Your task to perform on an android device: Is it going to rain this weekend? Image 0: 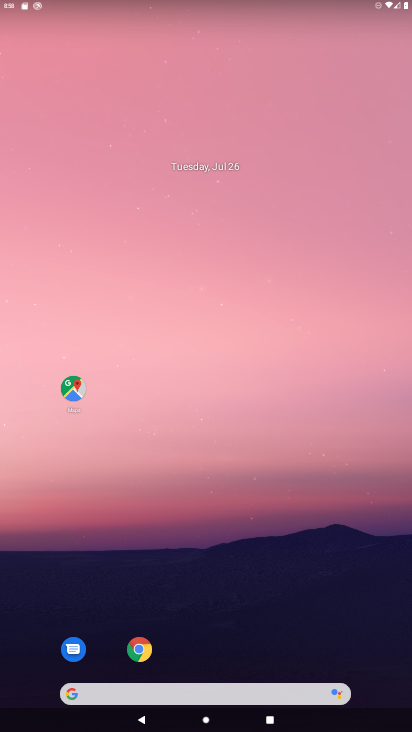
Step 0: click (242, 693)
Your task to perform on an android device: Is it going to rain this weekend? Image 1: 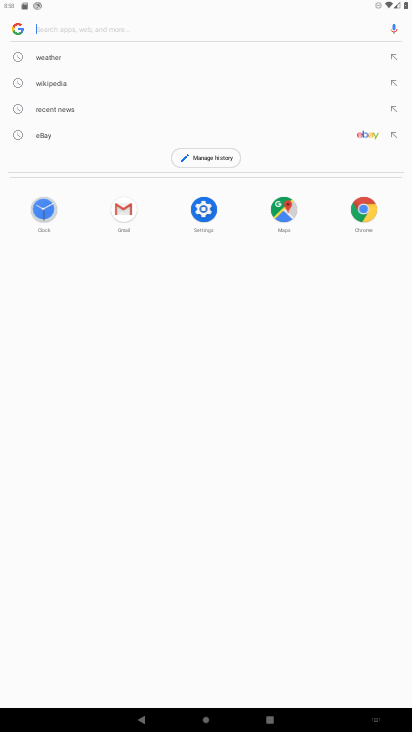
Step 1: click (83, 59)
Your task to perform on an android device: Is it going to rain this weekend? Image 2: 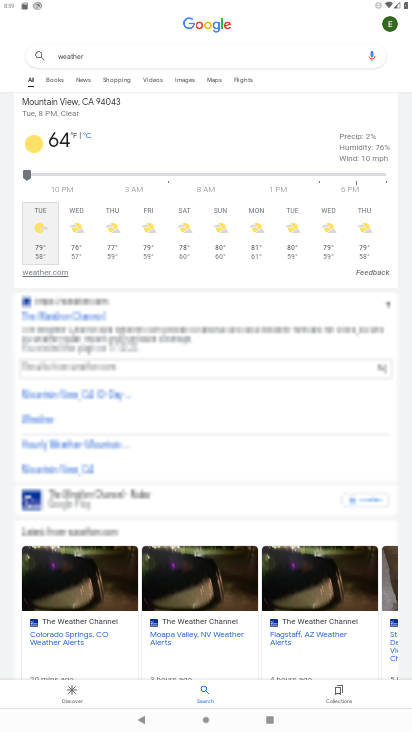
Step 2: click (216, 230)
Your task to perform on an android device: Is it going to rain this weekend? Image 3: 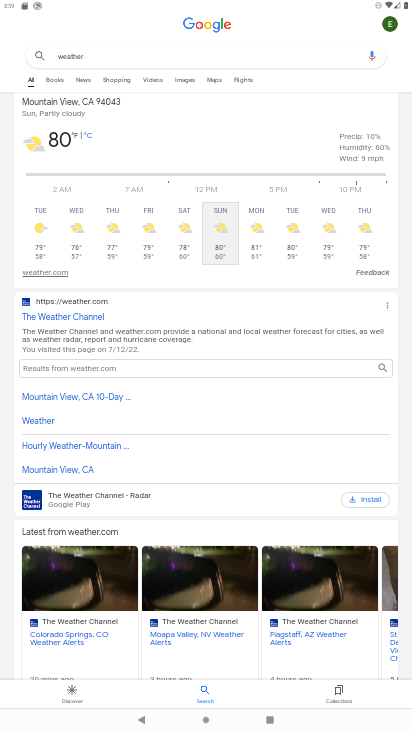
Step 3: task complete